Your task to perform on an android device: What's the weather today? Image 0: 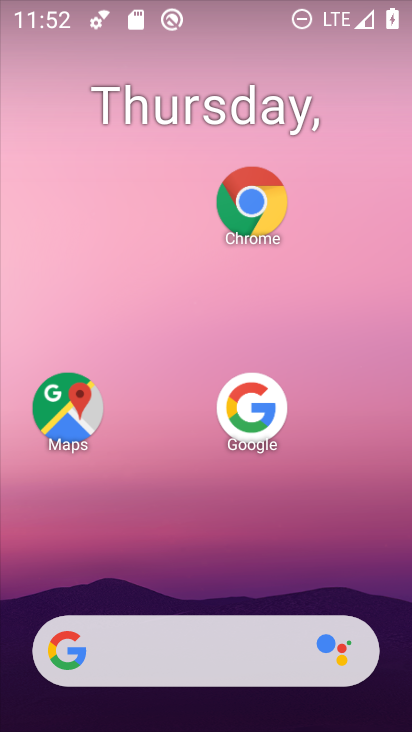
Step 0: click (201, 653)
Your task to perform on an android device: What's the weather today? Image 1: 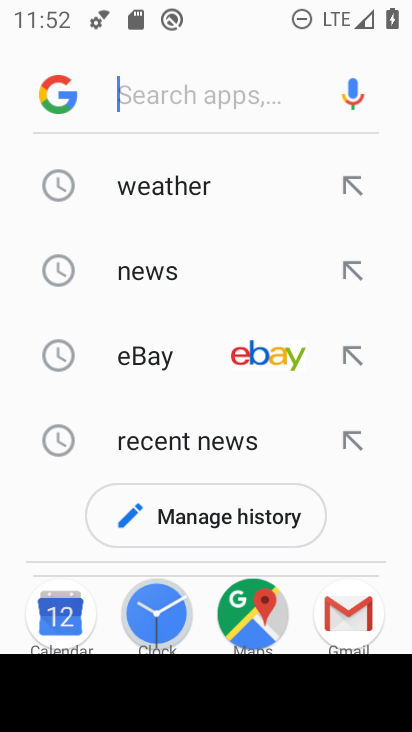
Step 1: click (123, 165)
Your task to perform on an android device: What's the weather today? Image 2: 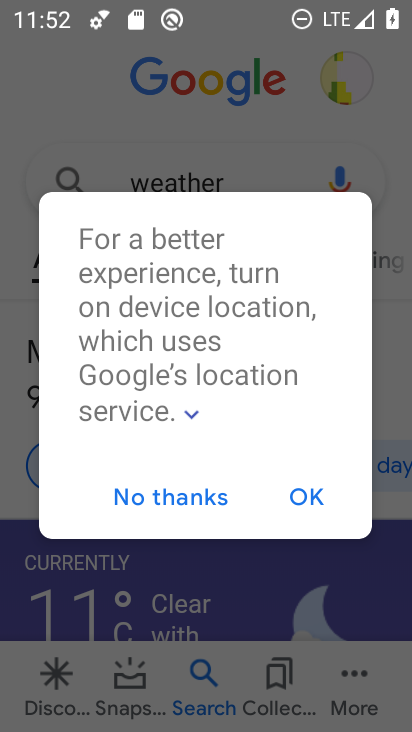
Step 2: click (319, 503)
Your task to perform on an android device: What's the weather today? Image 3: 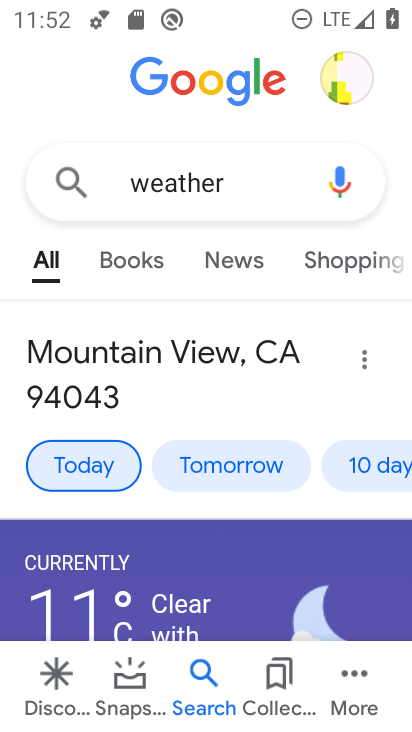
Step 3: click (139, 602)
Your task to perform on an android device: What's the weather today? Image 4: 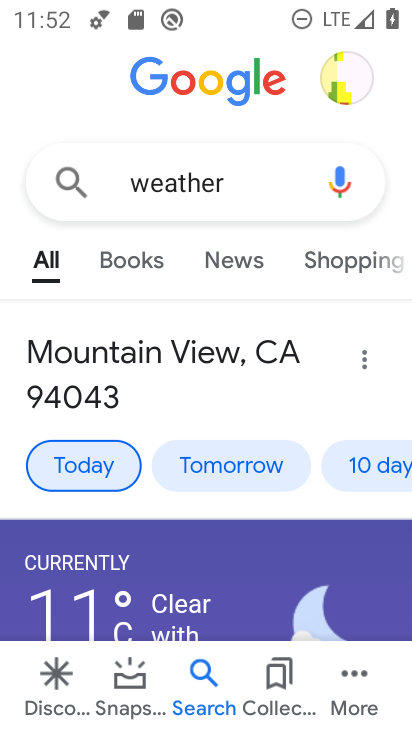
Step 4: task complete